Your task to perform on an android device: Is it going to rain tomorrow? Image 0: 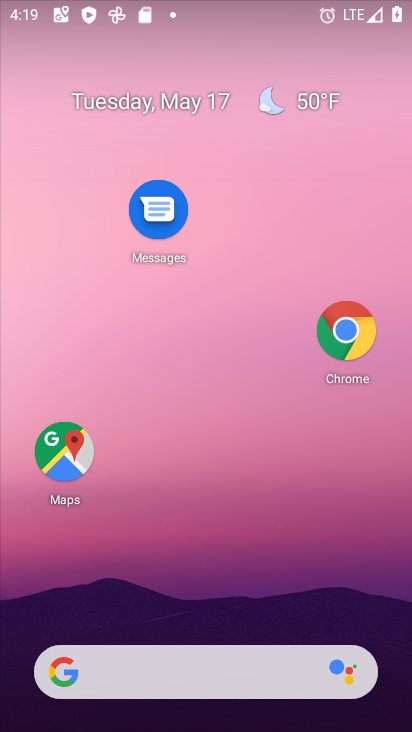
Step 0: click (238, 676)
Your task to perform on an android device: Is it going to rain tomorrow? Image 1: 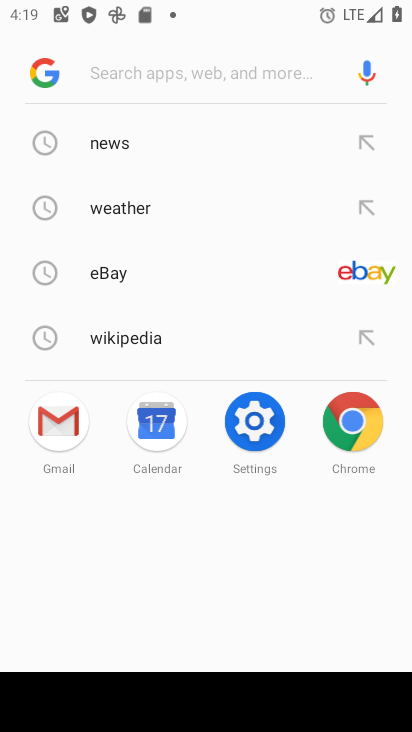
Step 1: click (128, 213)
Your task to perform on an android device: Is it going to rain tomorrow? Image 2: 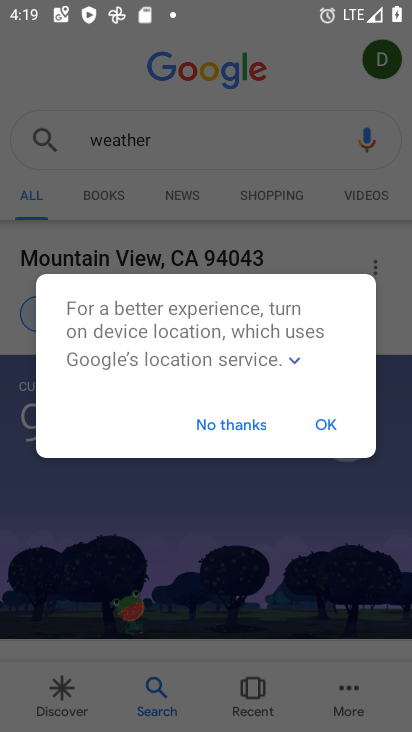
Step 2: click (326, 433)
Your task to perform on an android device: Is it going to rain tomorrow? Image 3: 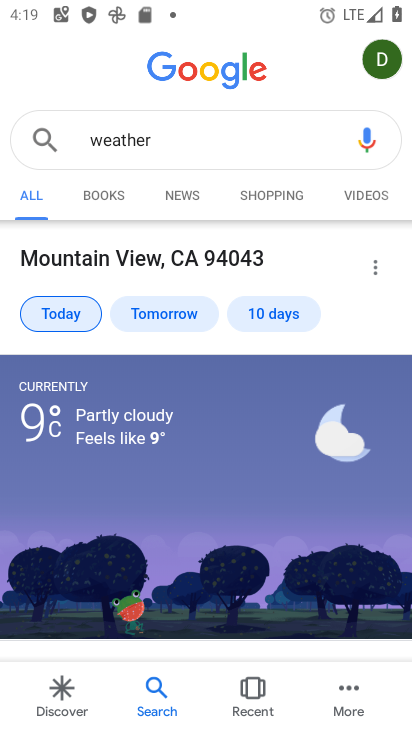
Step 3: click (154, 323)
Your task to perform on an android device: Is it going to rain tomorrow? Image 4: 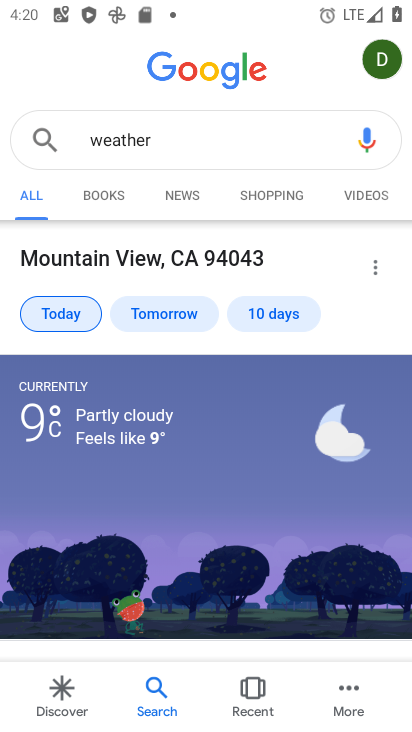
Step 4: click (189, 316)
Your task to perform on an android device: Is it going to rain tomorrow? Image 5: 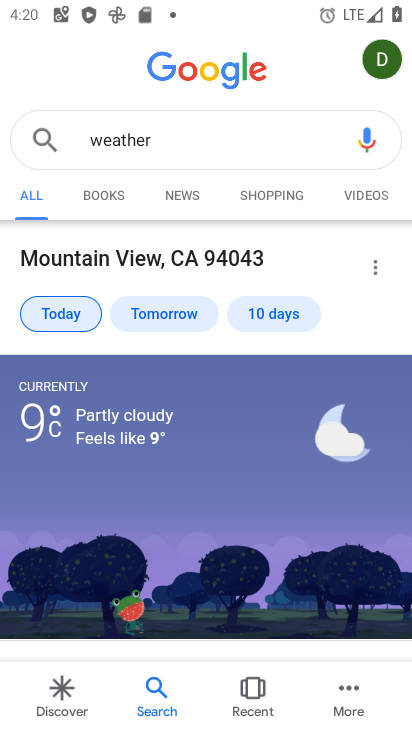
Step 5: click (189, 316)
Your task to perform on an android device: Is it going to rain tomorrow? Image 6: 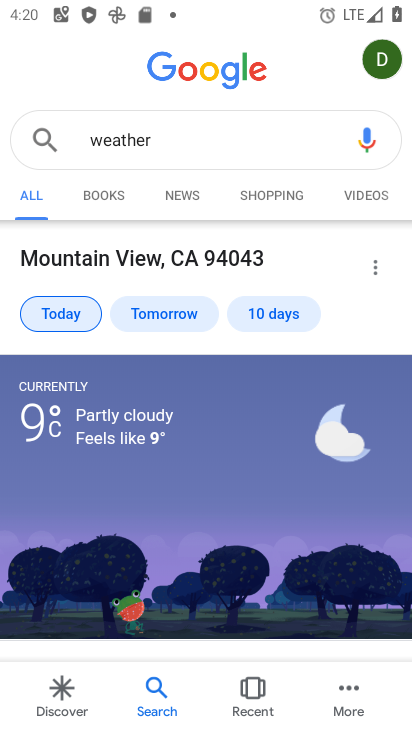
Step 6: click (189, 316)
Your task to perform on an android device: Is it going to rain tomorrow? Image 7: 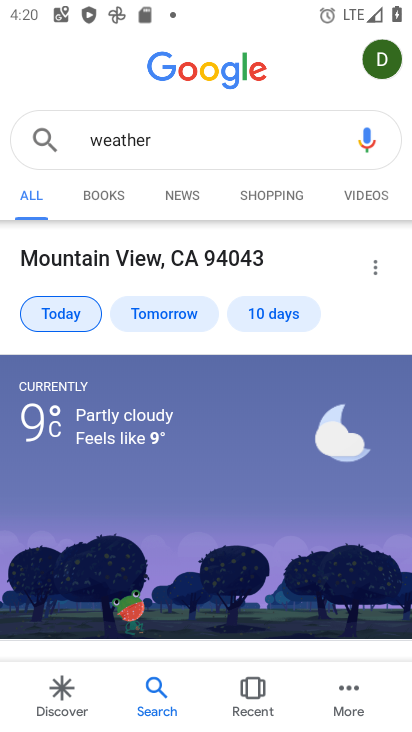
Step 7: task complete